Your task to perform on an android device: check storage Image 0: 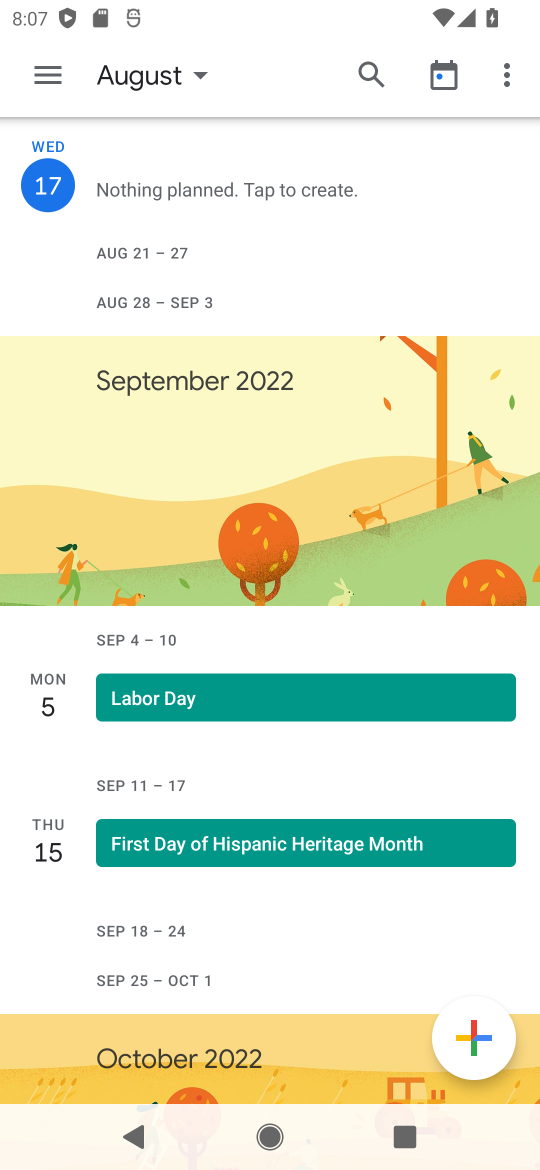
Step 0: press home button
Your task to perform on an android device: check storage Image 1: 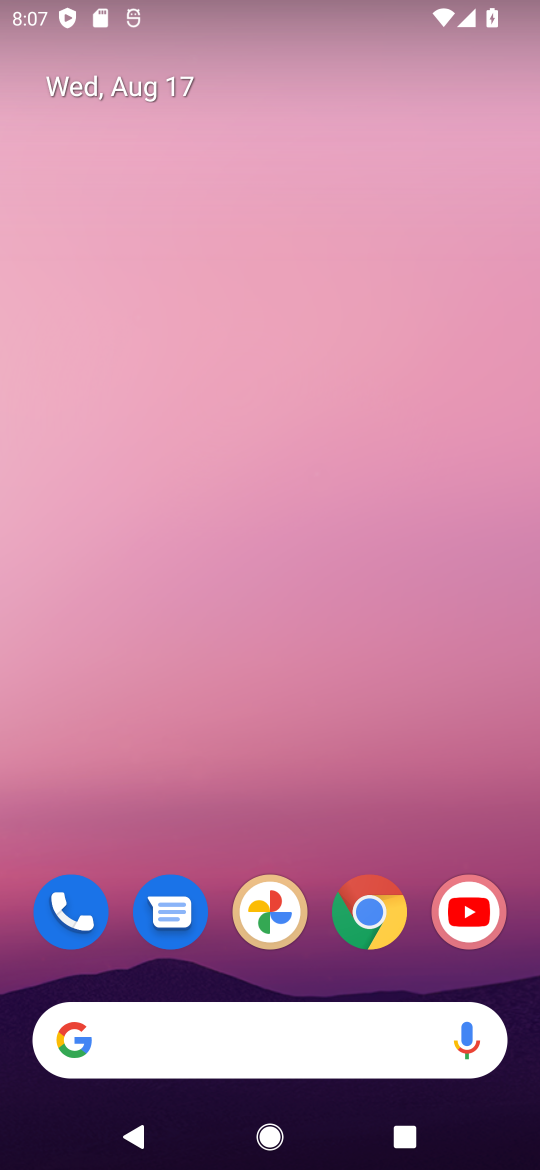
Step 1: drag from (297, 1004) to (210, 372)
Your task to perform on an android device: check storage Image 2: 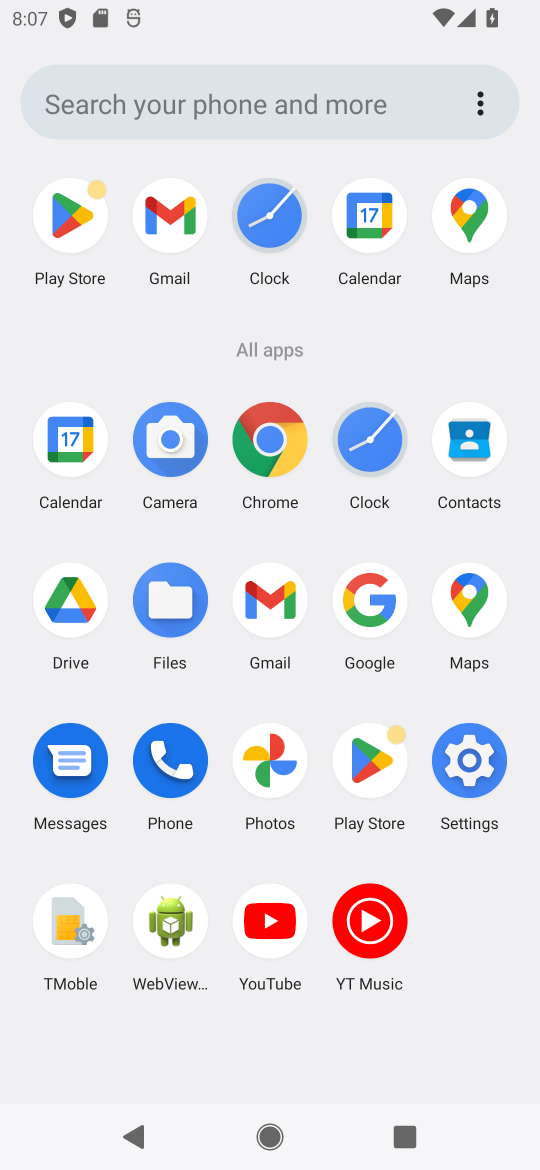
Step 2: click (471, 775)
Your task to perform on an android device: check storage Image 3: 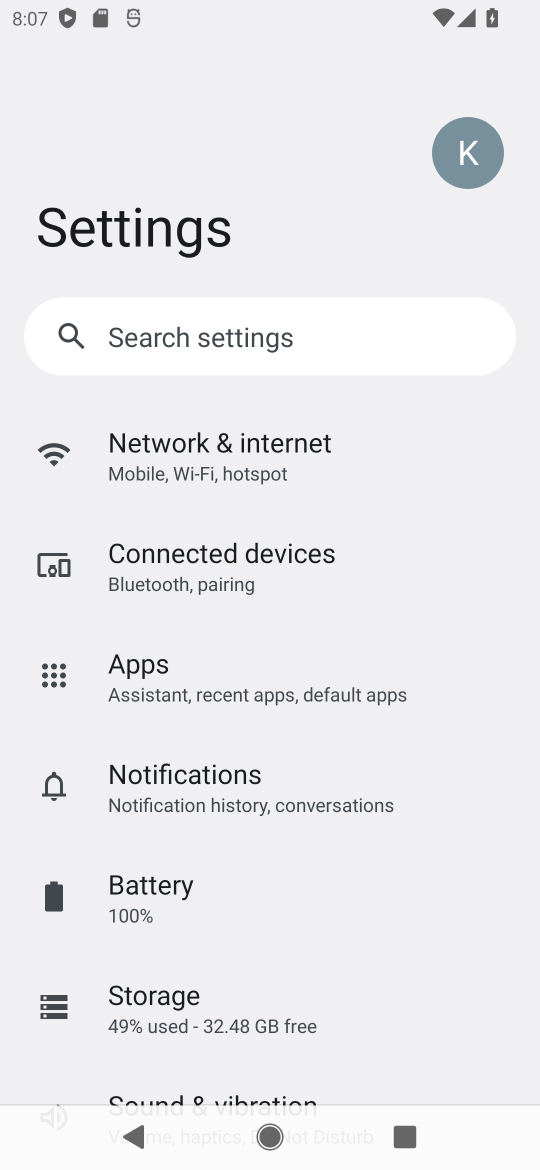
Step 3: click (146, 1020)
Your task to perform on an android device: check storage Image 4: 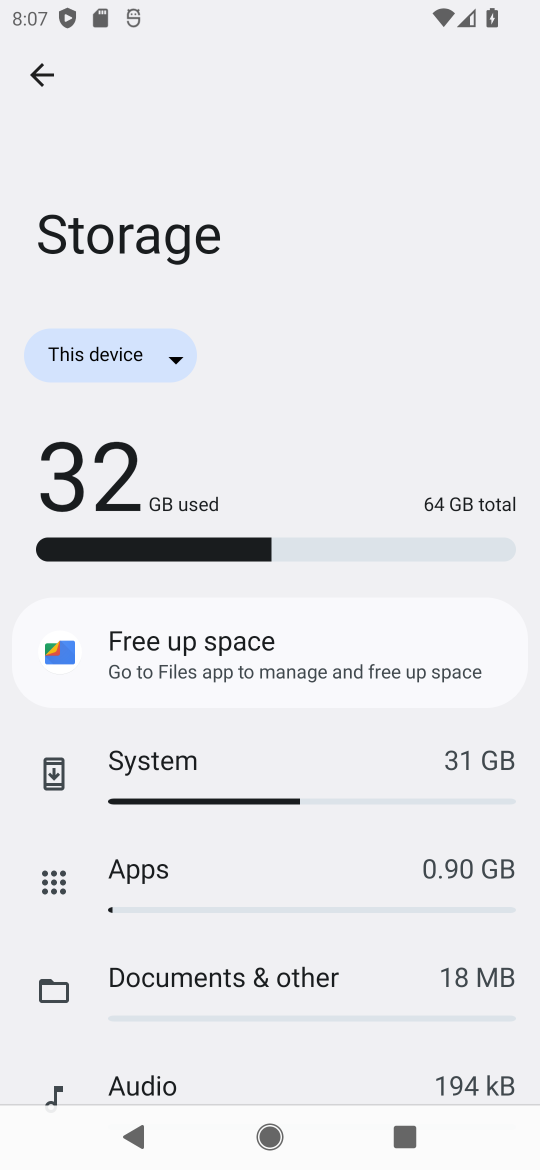
Step 4: task complete